Your task to perform on an android device: Open Google Image 0: 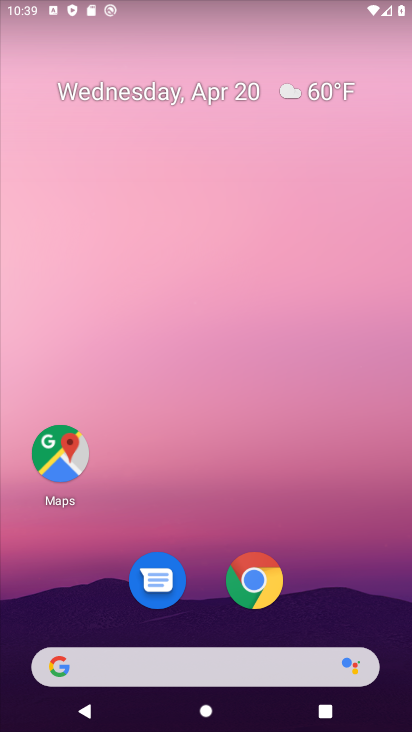
Step 0: drag from (152, 650) to (173, 62)
Your task to perform on an android device: Open Google Image 1: 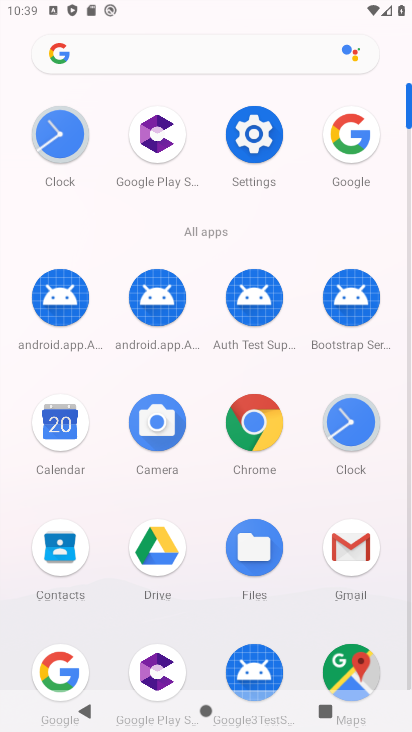
Step 1: click (61, 656)
Your task to perform on an android device: Open Google Image 2: 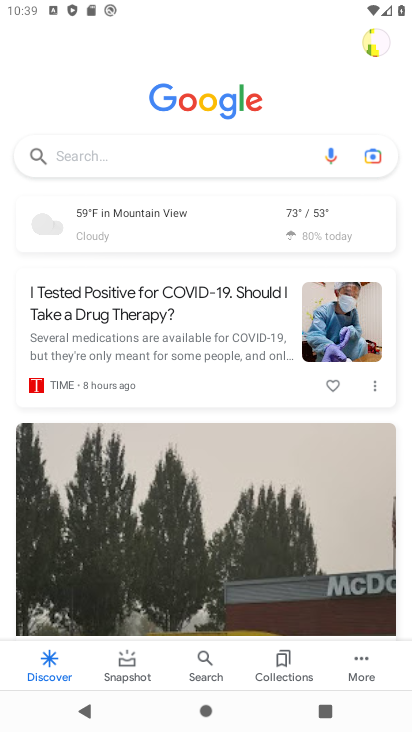
Step 2: task complete